Your task to perform on an android device: change the clock style Image 0: 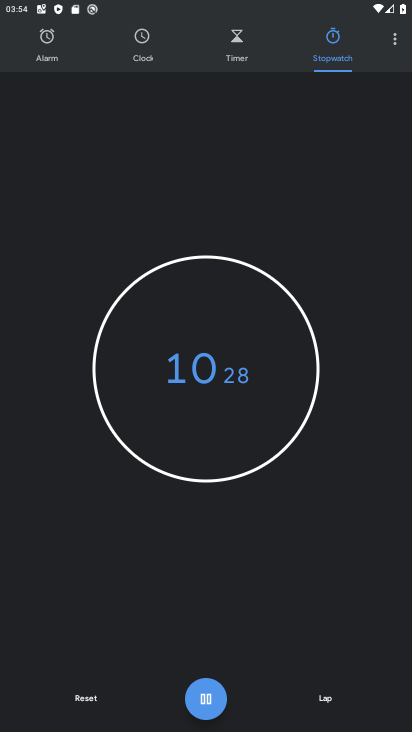
Step 0: press home button
Your task to perform on an android device: change the clock style Image 1: 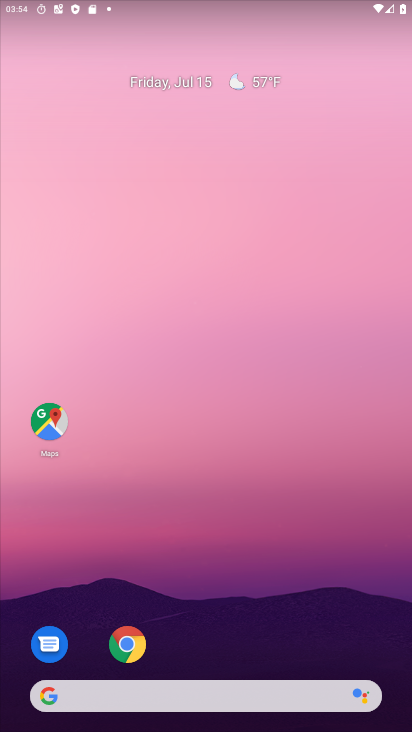
Step 1: drag from (298, 649) to (236, 159)
Your task to perform on an android device: change the clock style Image 2: 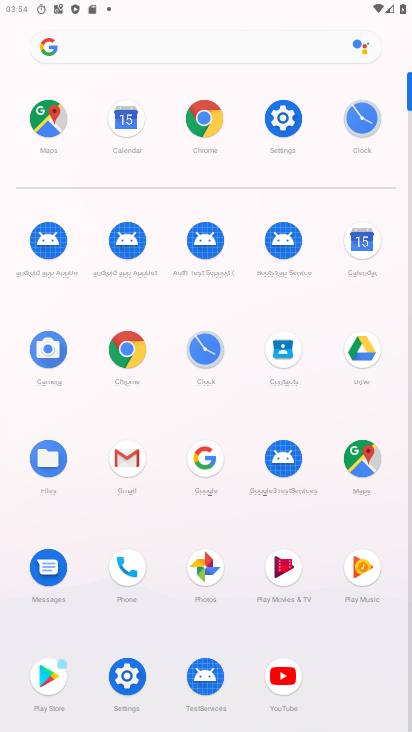
Step 2: click (206, 351)
Your task to perform on an android device: change the clock style Image 3: 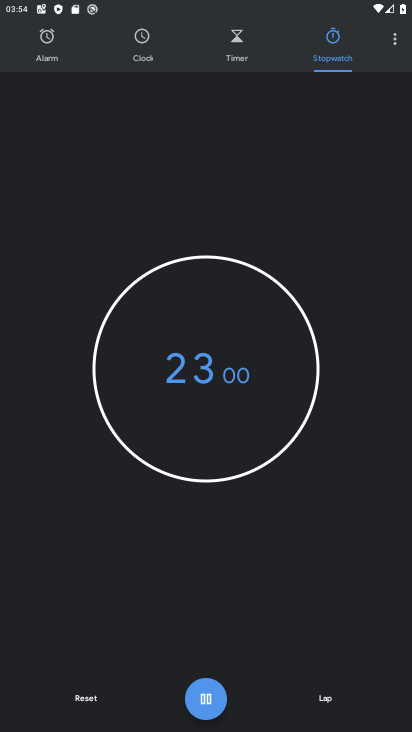
Step 3: click (398, 51)
Your task to perform on an android device: change the clock style Image 4: 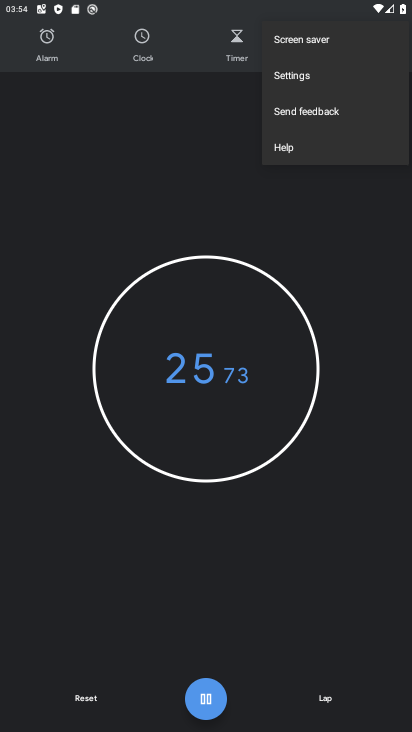
Step 4: click (347, 69)
Your task to perform on an android device: change the clock style Image 5: 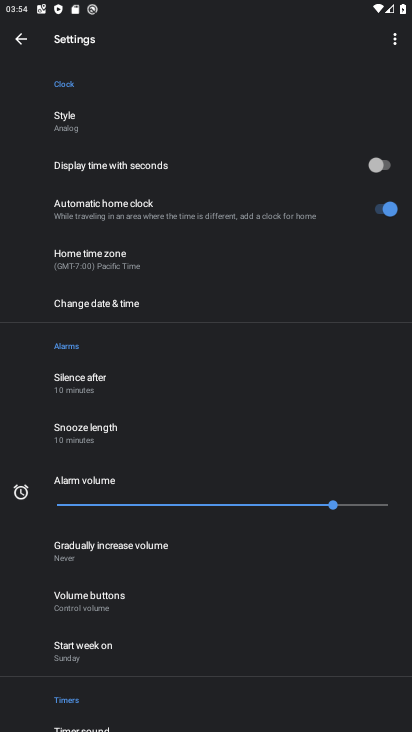
Step 5: click (152, 135)
Your task to perform on an android device: change the clock style Image 6: 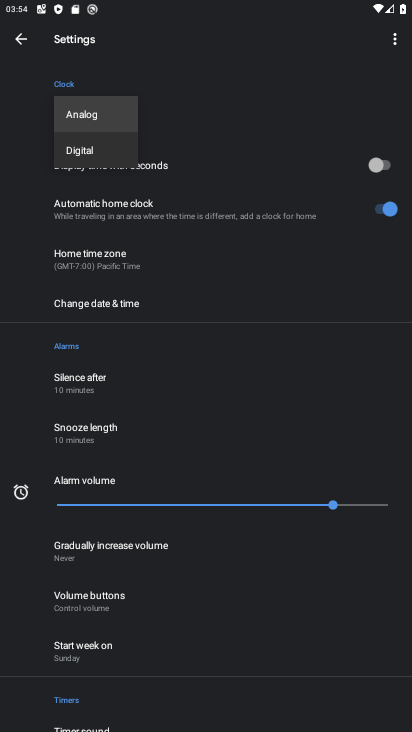
Step 6: click (129, 152)
Your task to perform on an android device: change the clock style Image 7: 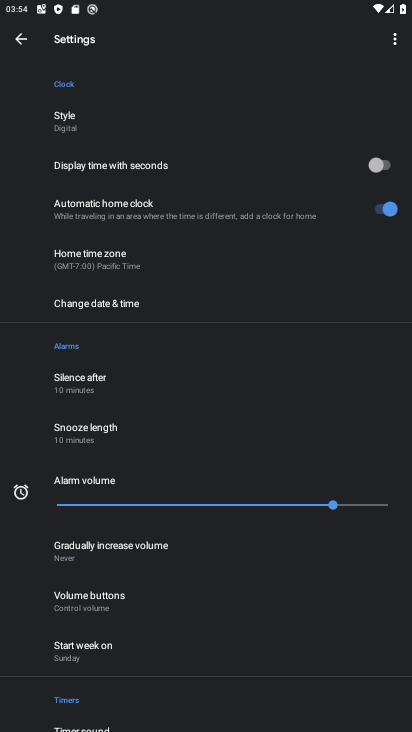
Step 7: task complete